Your task to perform on an android device: Open Google Image 0: 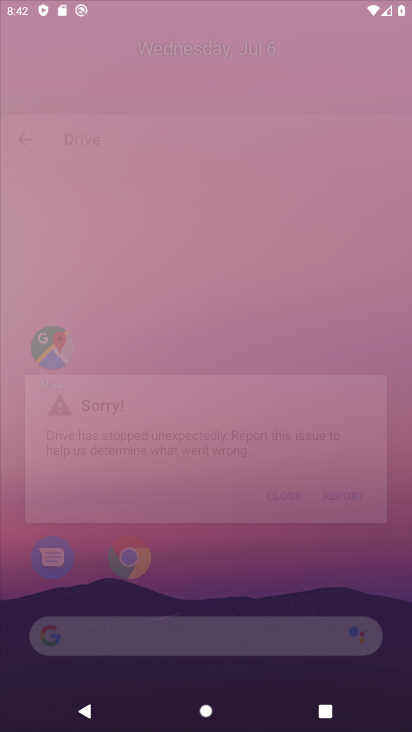
Step 0: click (260, 149)
Your task to perform on an android device: Open Google Image 1: 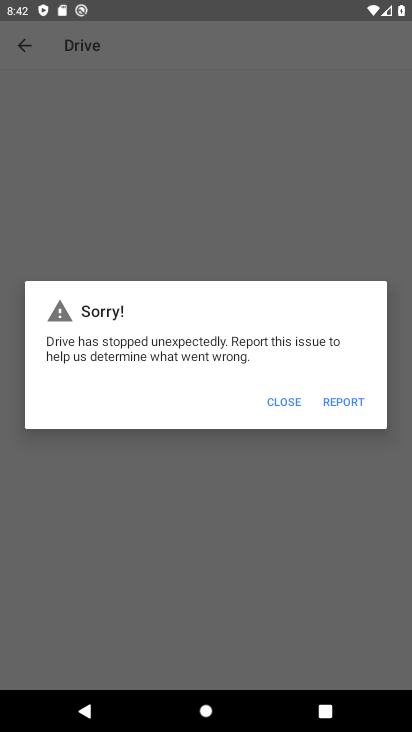
Step 1: drag from (272, 565) to (337, 165)
Your task to perform on an android device: Open Google Image 2: 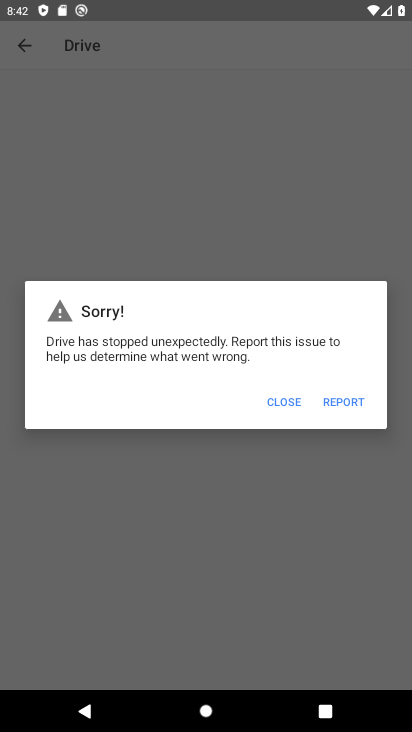
Step 2: press home button
Your task to perform on an android device: Open Google Image 3: 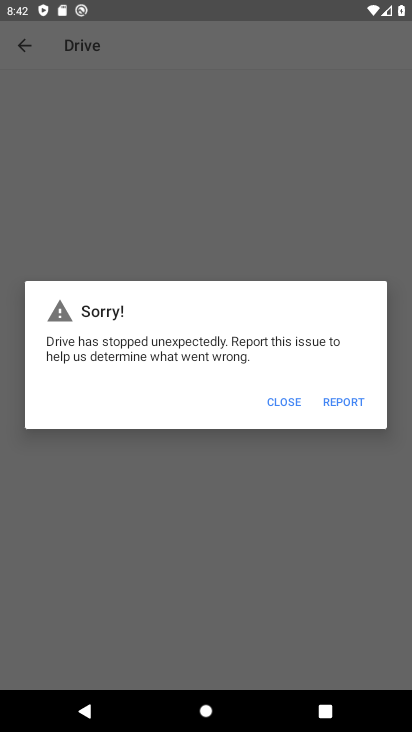
Step 3: press home button
Your task to perform on an android device: Open Google Image 4: 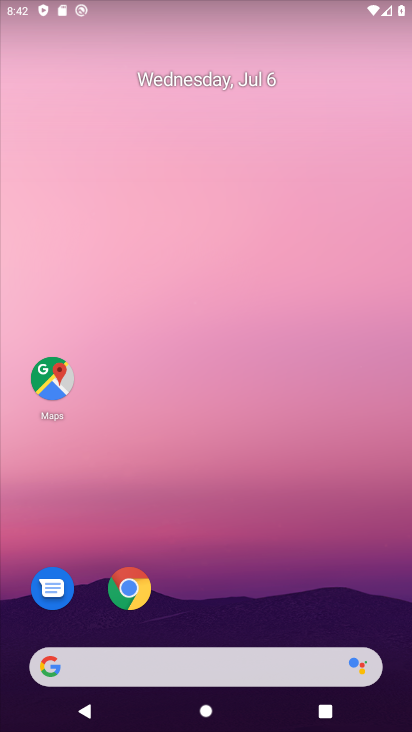
Step 4: drag from (166, 643) to (332, 190)
Your task to perform on an android device: Open Google Image 5: 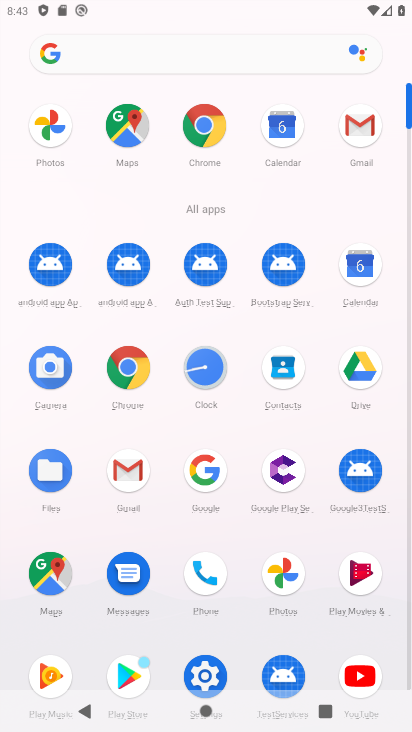
Step 5: click (199, 463)
Your task to perform on an android device: Open Google Image 6: 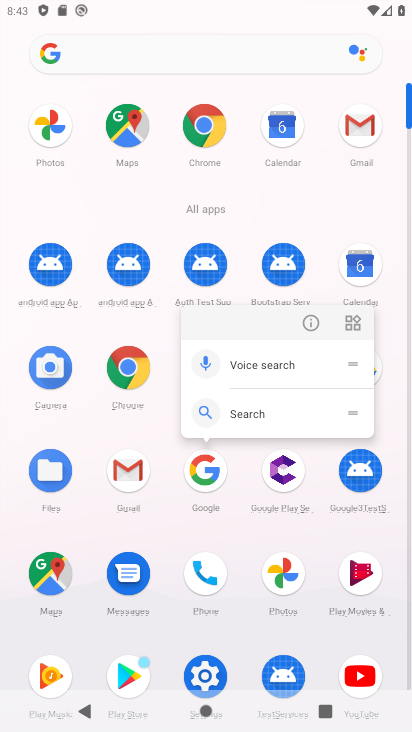
Step 6: click (303, 325)
Your task to perform on an android device: Open Google Image 7: 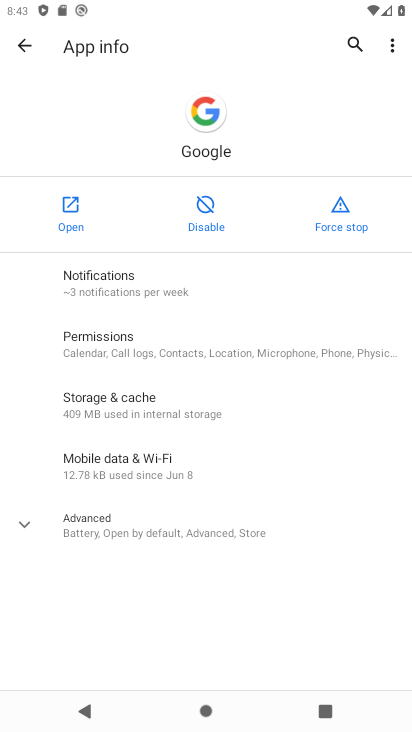
Step 7: click (68, 193)
Your task to perform on an android device: Open Google Image 8: 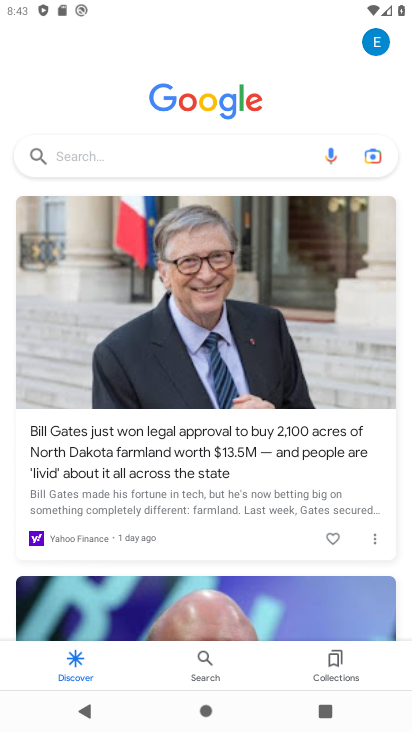
Step 8: task complete